Your task to perform on an android device: delete location history Image 0: 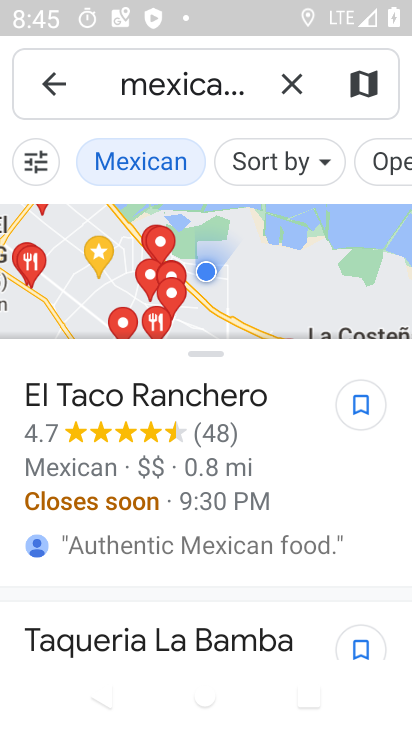
Step 0: press home button
Your task to perform on an android device: delete location history Image 1: 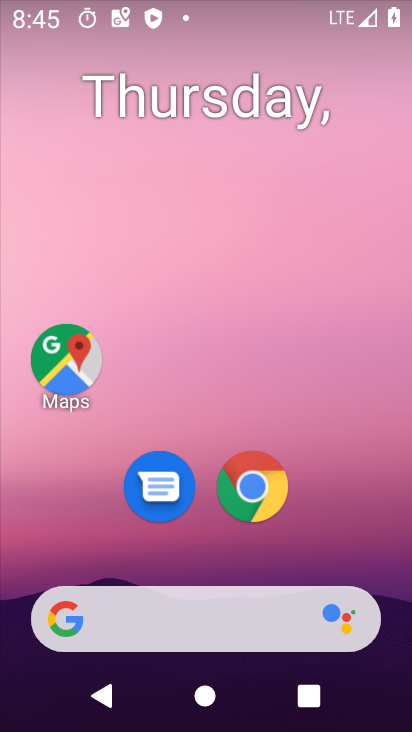
Step 1: drag from (189, 611) to (226, 115)
Your task to perform on an android device: delete location history Image 2: 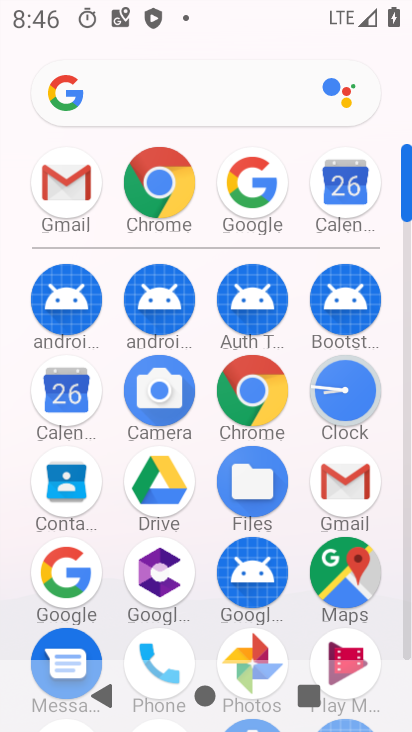
Step 2: drag from (197, 544) to (286, 104)
Your task to perform on an android device: delete location history Image 3: 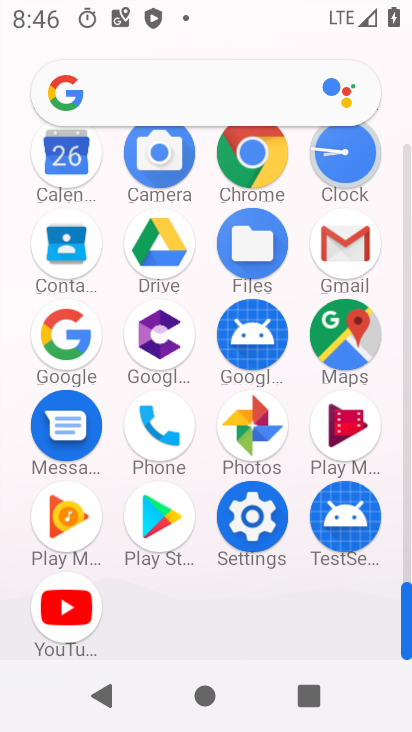
Step 3: click (252, 529)
Your task to perform on an android device: delete location history Image 4: 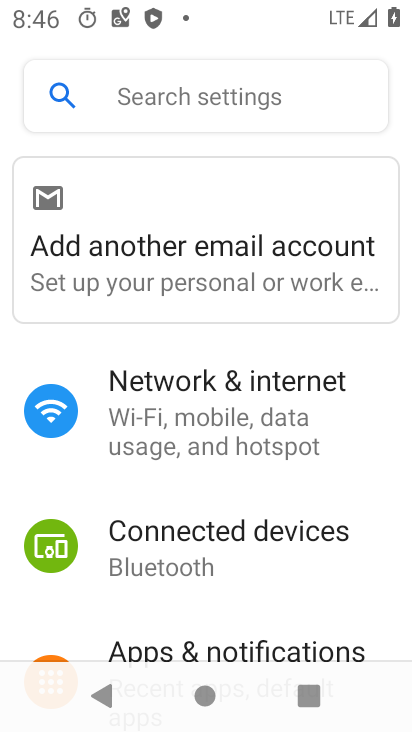
Step 4: drag from (181, 511) to (267, 145)
Your task to perform on an android device: delete location history Image 5: 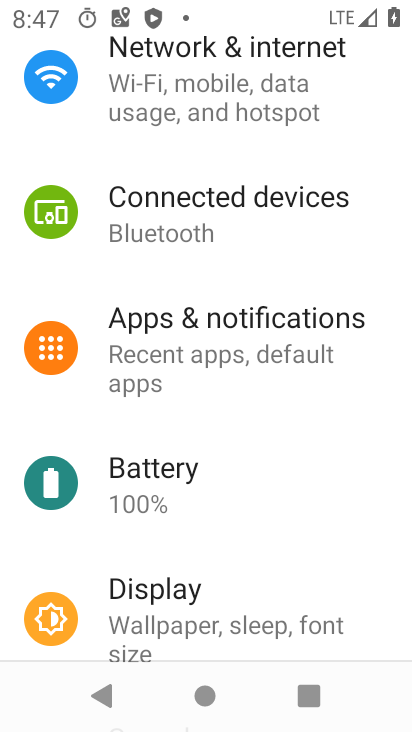
Step 5: drag from (211, 583) to (230, 124)
Your task to perform on an android device: delete location history Image 6: 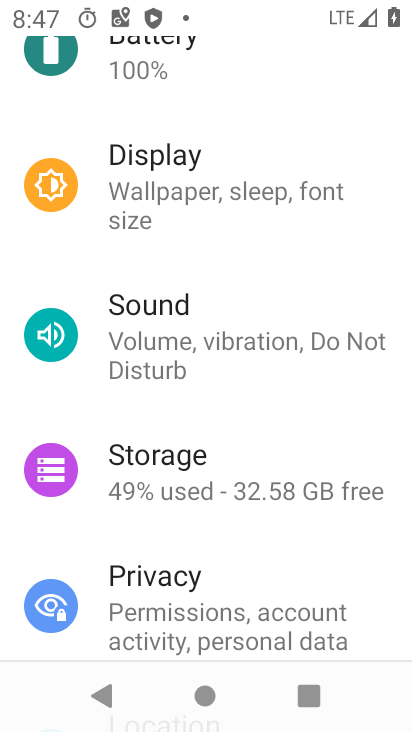
Step 6: drag from (214, 529) to (234, 185)
Your task to perform on an android device: delete location history Image 7: 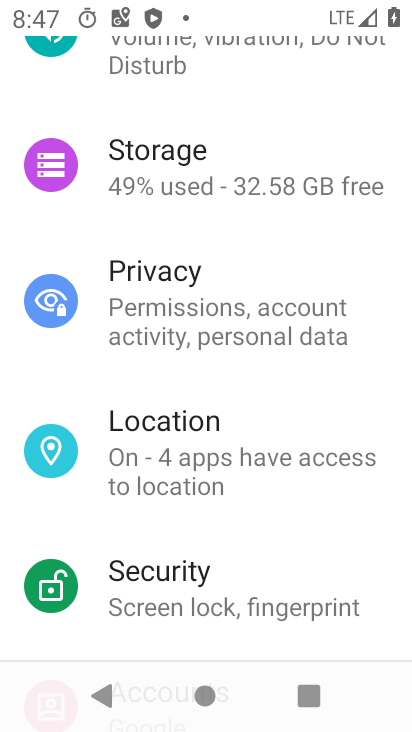
Step 7: click (230, 445)
Your task to perform on an android device: delete location history Image 8: 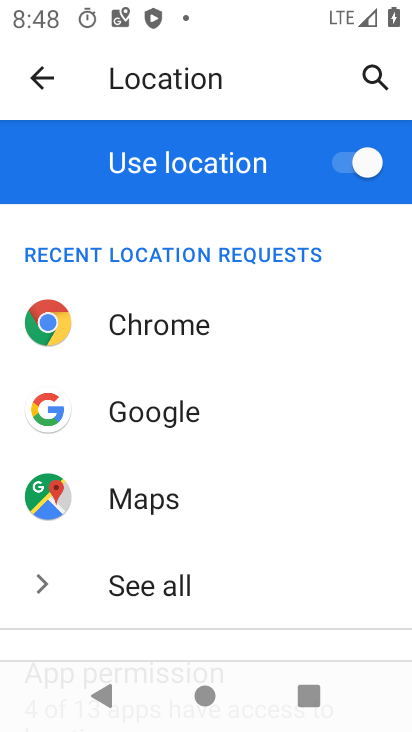
Step 8: drag from (241, 487) to (246, 13)
Your task to perform on an android device: delete location history Image 9: 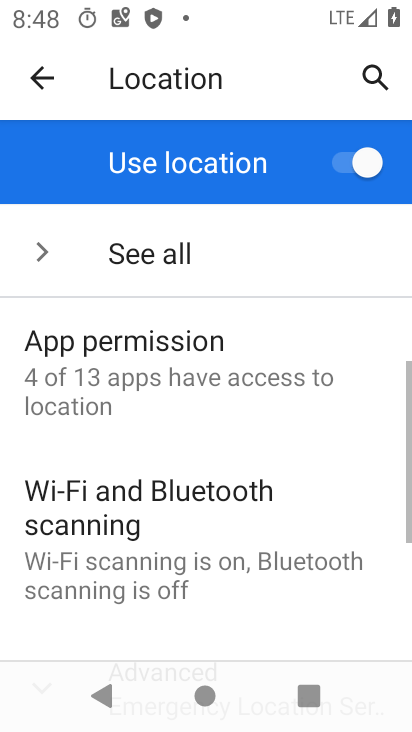
Step 9: drag from (161, 542) to (190, 190)
Your task to perform on an android device: delete location history Image 10: 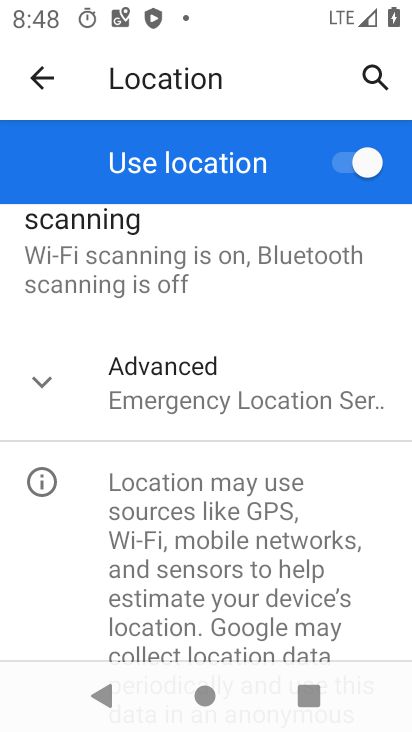
Step 10: click (173, 366)
Your task to perform on an android device: delete location history Image 11: 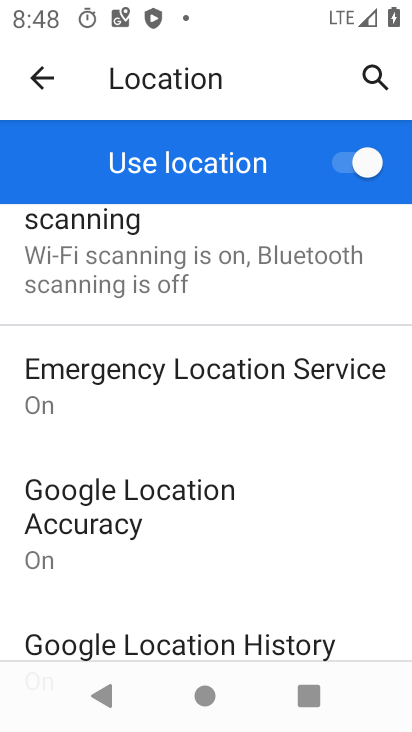
Step 11: drag from (261, 569) to (277, 308)
Your task to perform on an android device: delete location history Image 12: 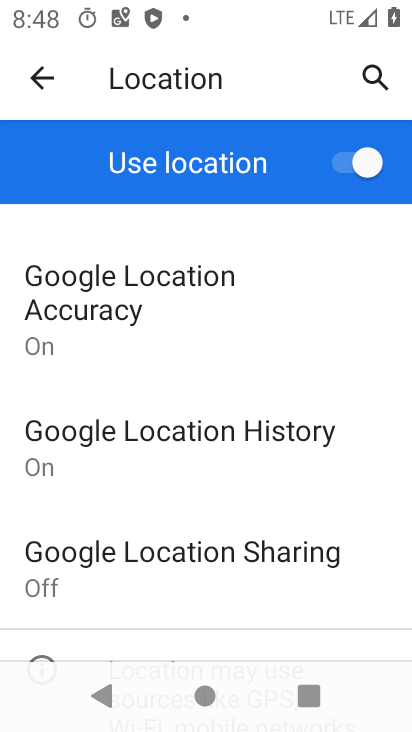
Step 12: click (283, 455)
Your task to perform on an android device: delete location history Image 13: 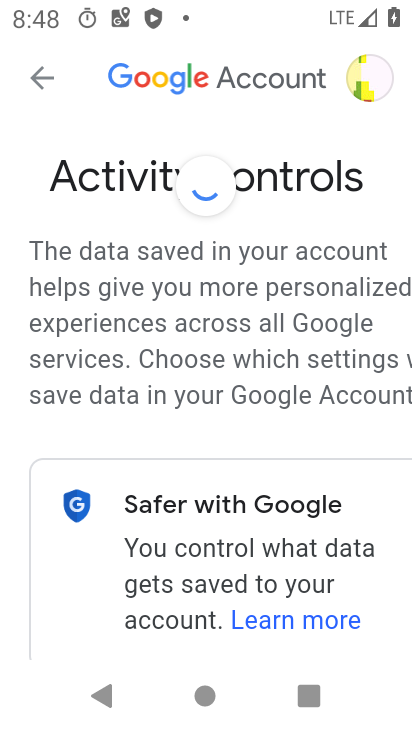
Step 13: drag from (216, 612) to (142, 81)
Your task to perform on an android device: delete location history Image 14: 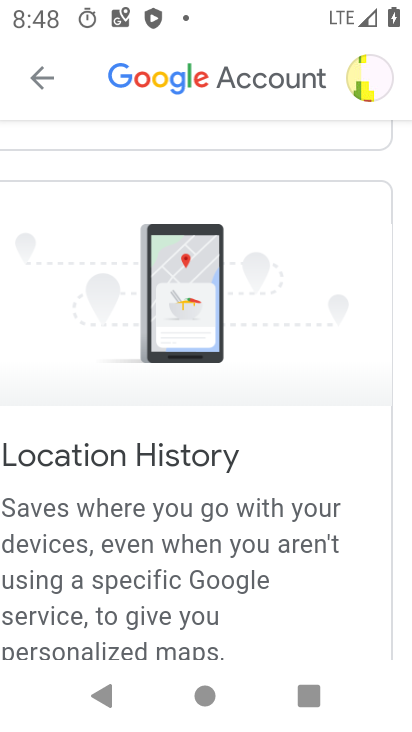
Step 14: drag from (162, 530) to (308, 73)
Your task to perform on an android device: delete location history Image 15: 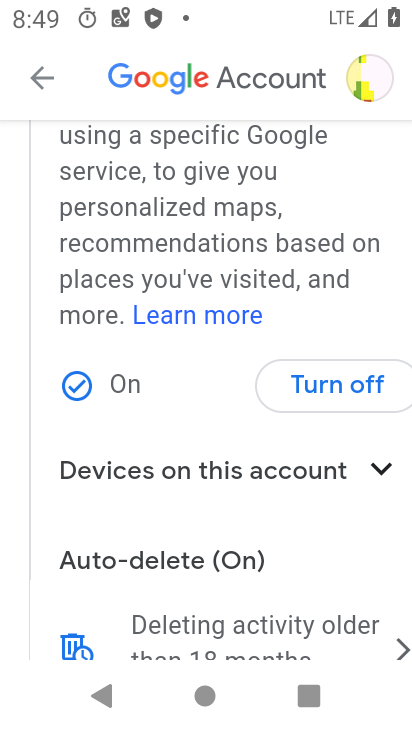
Step 15: click (286, 630)
Your task to perform on an android device: delete location history Image 16: 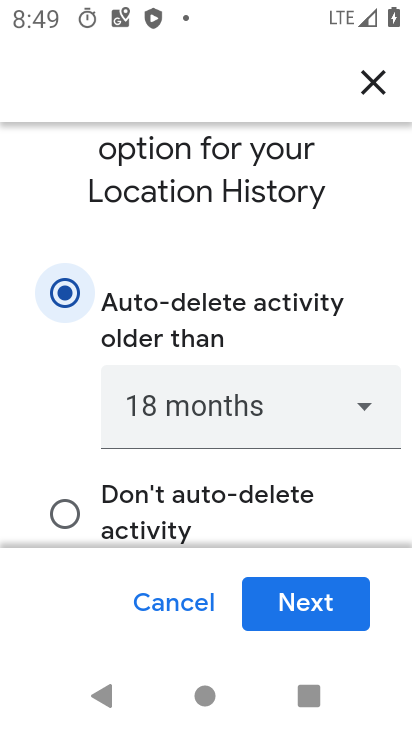
Step 16: click (327, 590)
Your task to perform on an android device: delete location history Image 17: 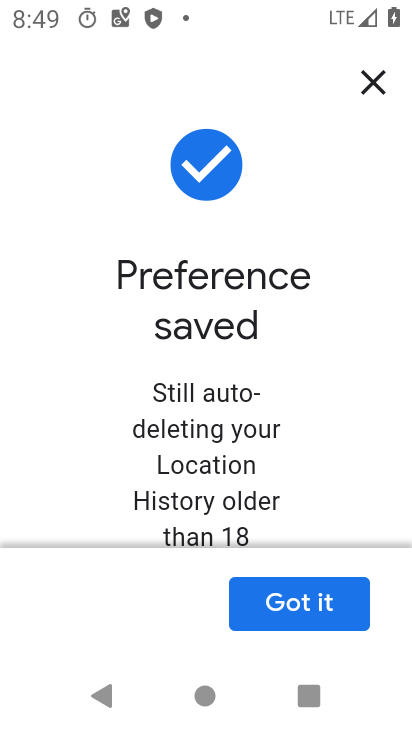
Step 17: click (310, 615)
Your task to perform on an android device: delete location history Image 18: 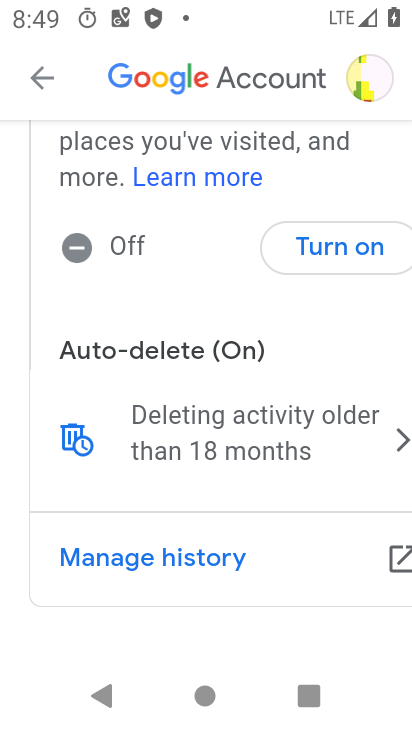
Step 18: task complete